Your task to perform on an android device: Go to CNN.com Image 0: 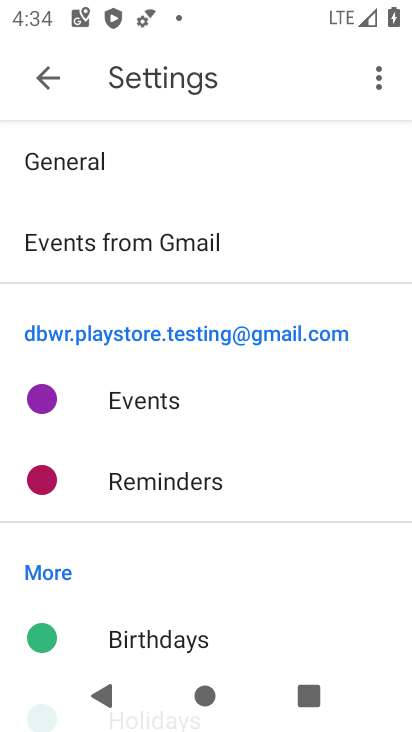
Step 0: press home button
Your task to perform on an android device: Go to CNN.com Image 1: 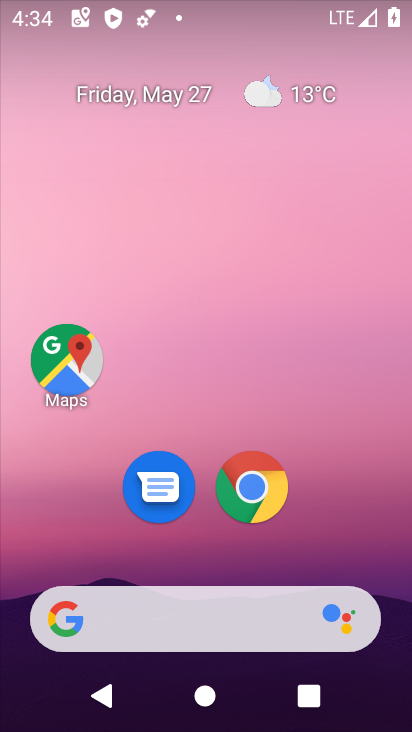
Step 1: click (258, 486)
Your task to perform on an android device: Go to CNN.com Image 2: 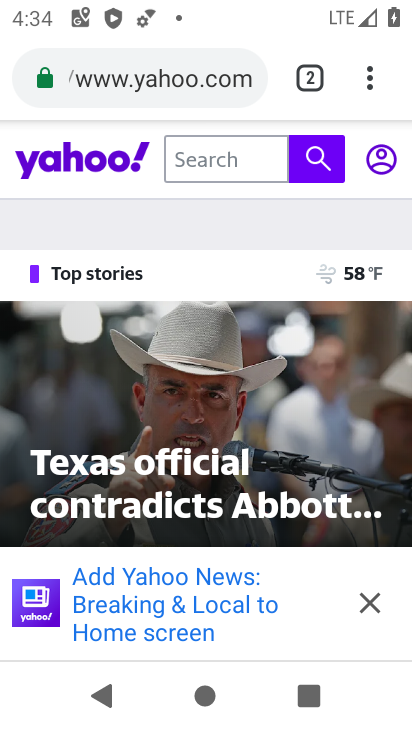
Step 2: click (190, 58)
Your task to perform on an android device: Go to CNN.com Image 3: 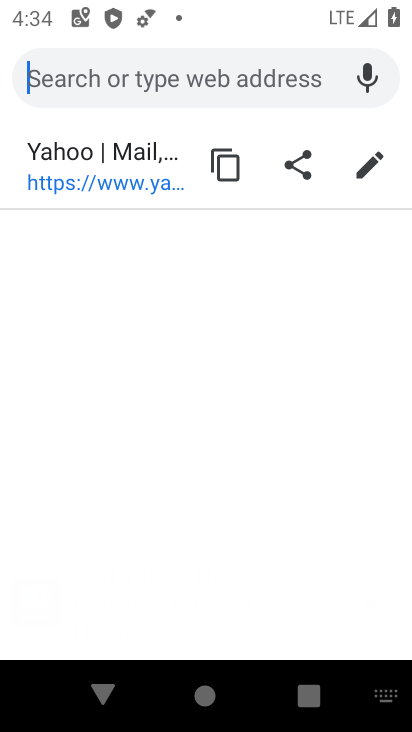
Step 3: type "cnn.com"
Your task to perform on an android device: Go to CNN.com Image 4: 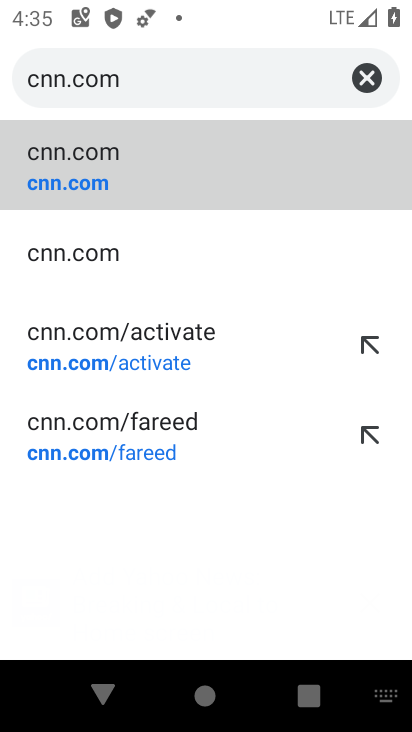
Step 4: click (100, 187)
Your task to perform on an android device: Go to CNN.com Image 5: 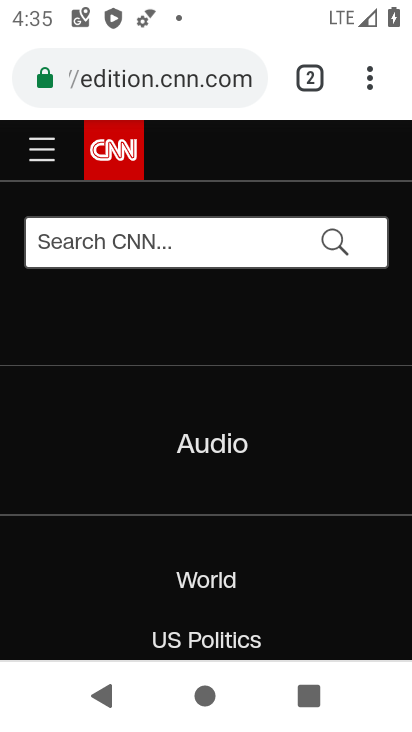
Step 5: task complete